Your task to perform on an android device: open wifi settings Image 0: 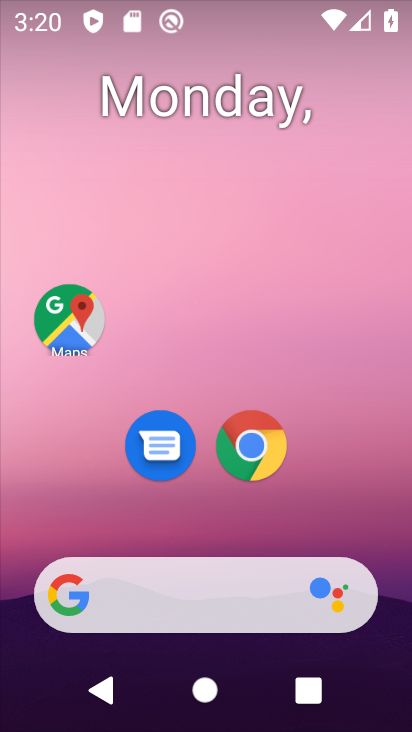
Step 0: drag from (228, 546) to (270, 278)
Your task to perform on an android device: open wifi settings Image 1: 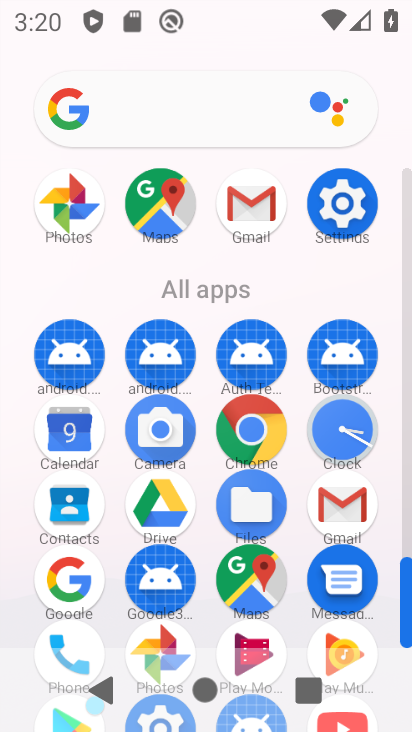
Step 1: click (341, 225)
Your task to perform on an android device: open wifi settings Image 2: 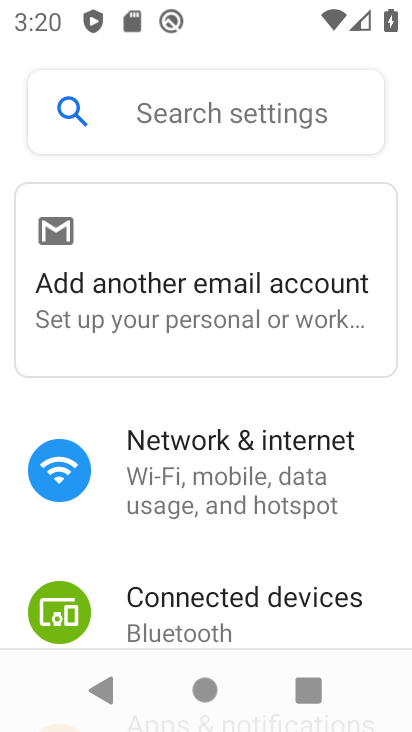
Step 2: click (198, 486)
Your task to perform on an android device: open wifi settings Image 3: 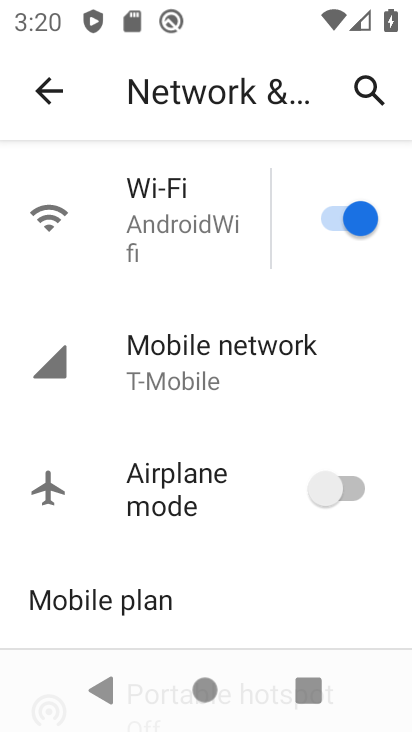
Step 3: click (173, 284)
Your task to perform on an android device: open wifi settings Image 4: 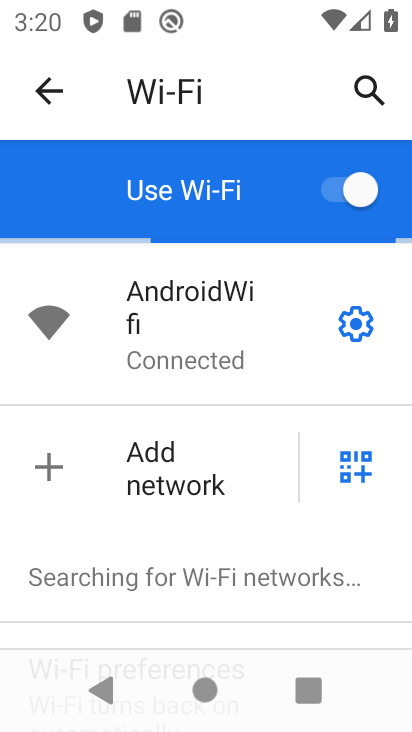
Step 4: task complete